Your task to perform on an android device: Go to Yahoo.com Image 0: 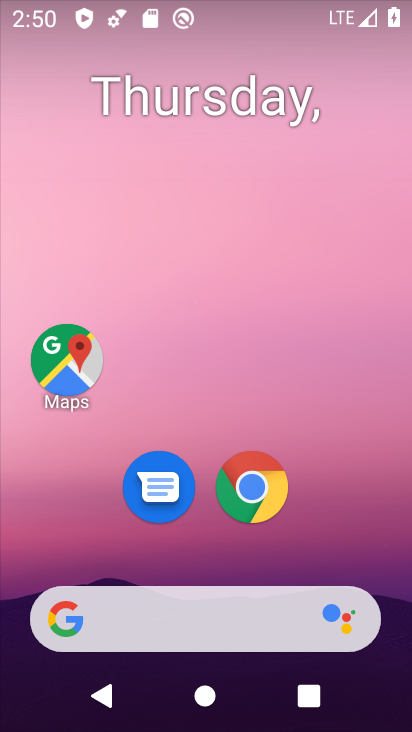
Step 0: click (255, 476)
Your task to perform on an android device: Go to Yahoo.com Image 1: 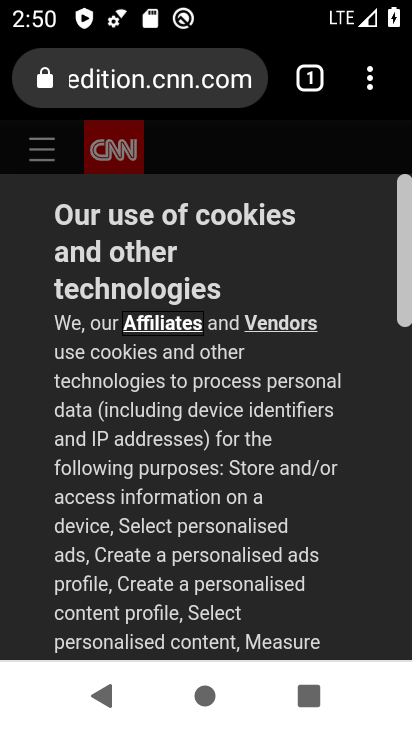
Step 1: click (89, 83)
Your task to perform on an android device: Go to Yahoo.com Image 2: 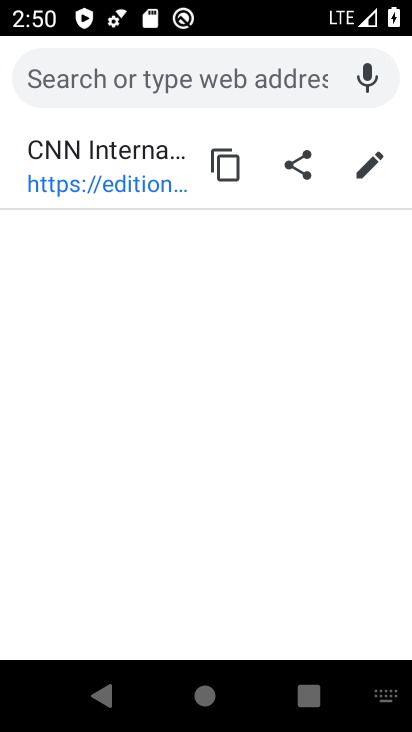
Step 2: type "yahoo"
Your task to perform on an android device: Go to Yahoo.com Image 3: 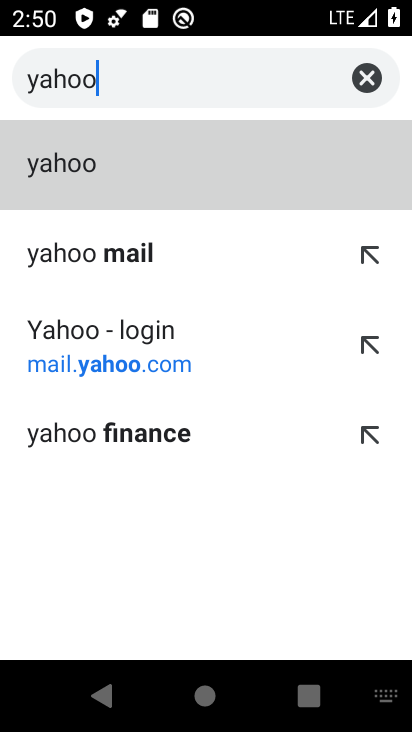
Step 3: click (55, 357)
Your task to perform on an android device: Go to Yahoo.com Image 4: 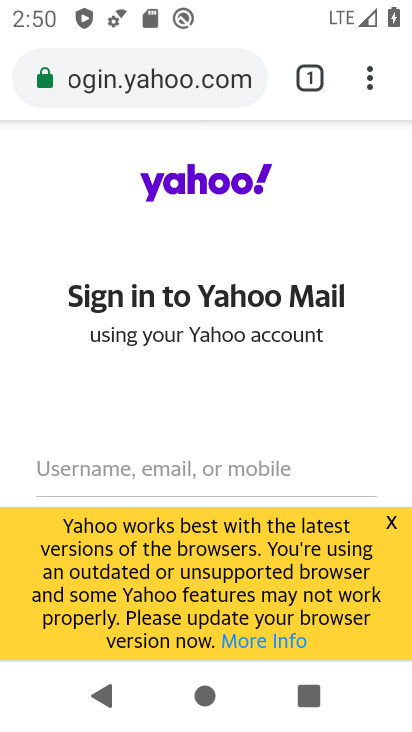
Step 4: task complete